Your task to perform on an android device: change keyboard looks Image 0: 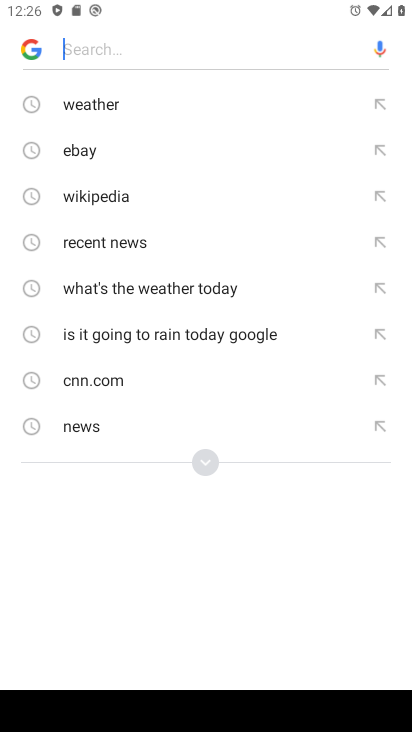
Step 0: press home button
Your task to perform on an android device: change keyboard looks Image 1: 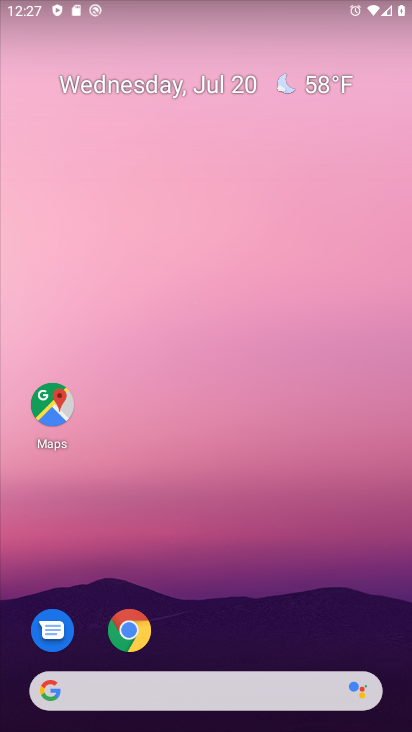
Step 1: drag from (223, 613) to (287, 244)
Your task to perform on an android device: change keyboard looks Image 2: 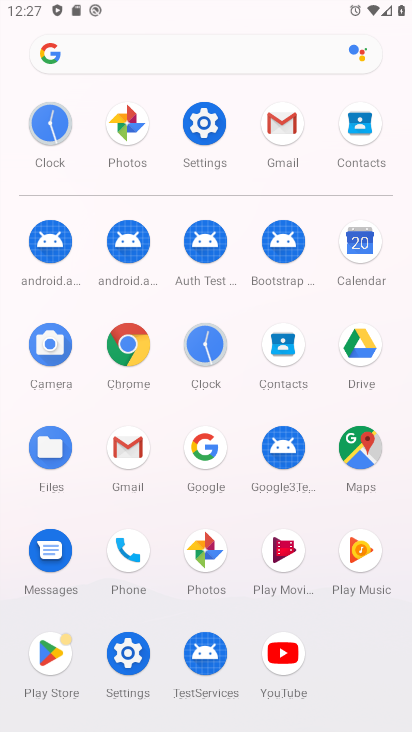
Step 2: click (209, 128)
Your task to perform on an android device: change keyboard looks Image 3: 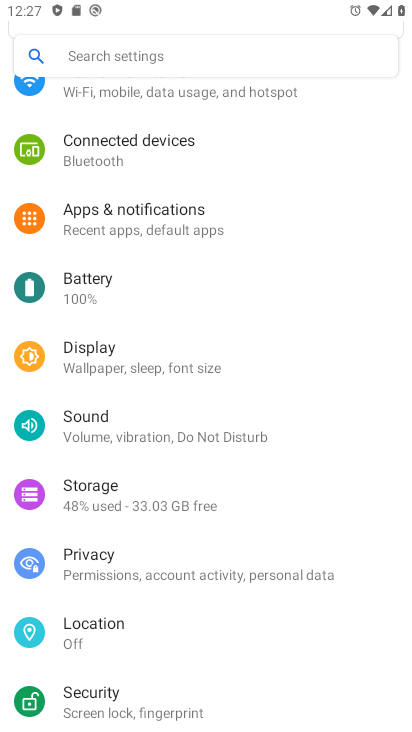
Step 3: drag from (220, 671) to (348, 119)
Your task to perform on an android device: change keyboard looks Image 4: 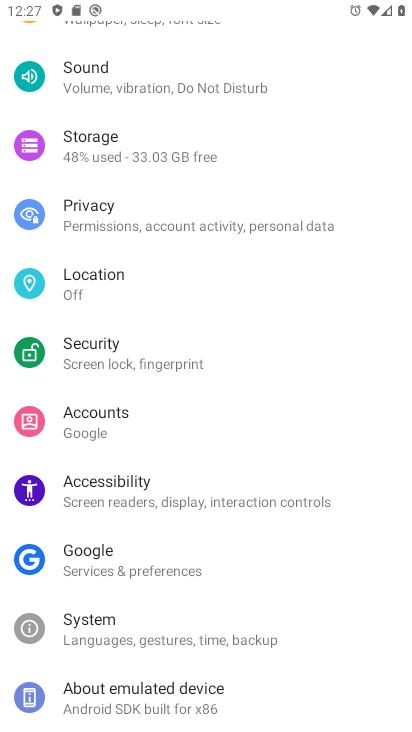
Step 4: click (164, 640)
Your task to perform on an android device: change keyboard looks Image 5: 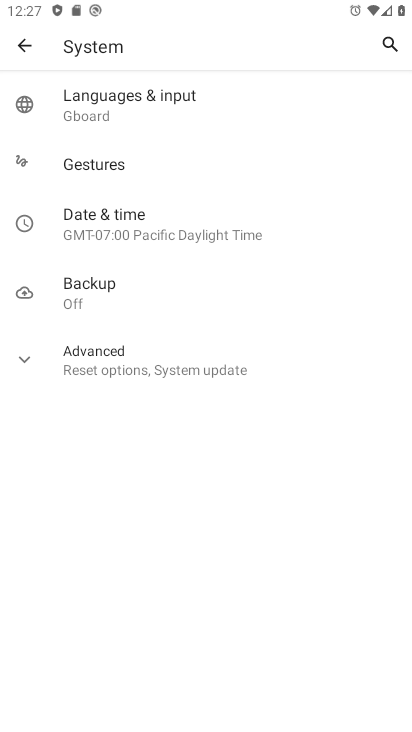
Step 5: click (106, 96)
Your task to perform on an android device: change keyboard looks Image 6: 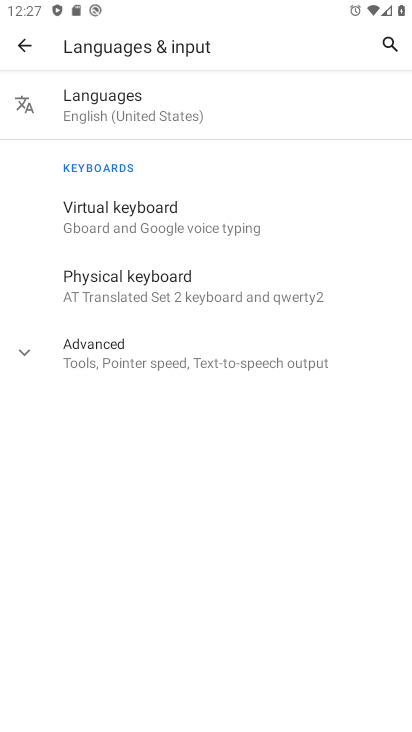
Step 6: click (128, 220)
Your task to perform on an android device: change keyboard looks Image 7: 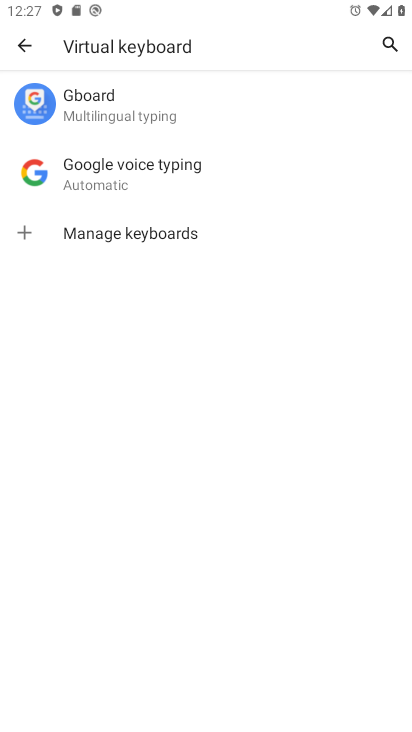
Step 7: click (113, 100)
Your task to perform on an android device: change keyboard looks Image 8: 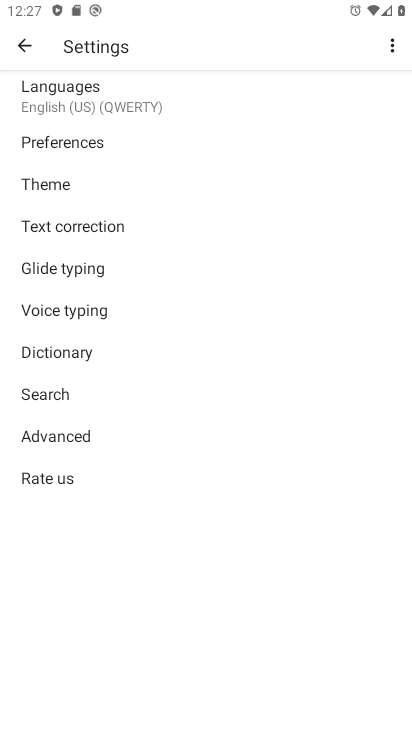
Step 8: click (67, 184)
Your task to perform on an android device: change keyboard looks Image 9: 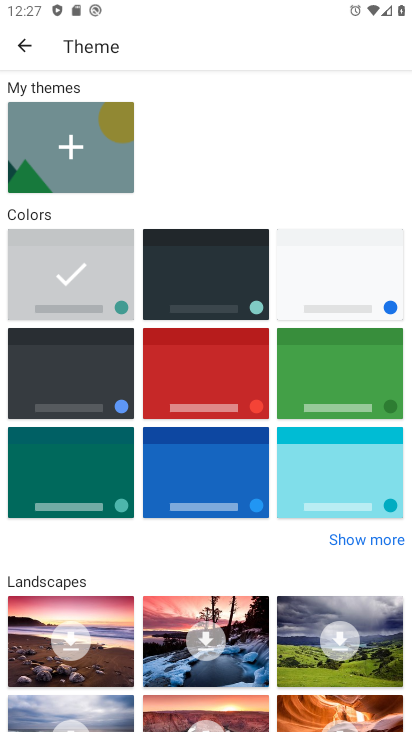
Step 9: click (193, 464)
Your task to perform on an android device: change keyboard looks Image 10: 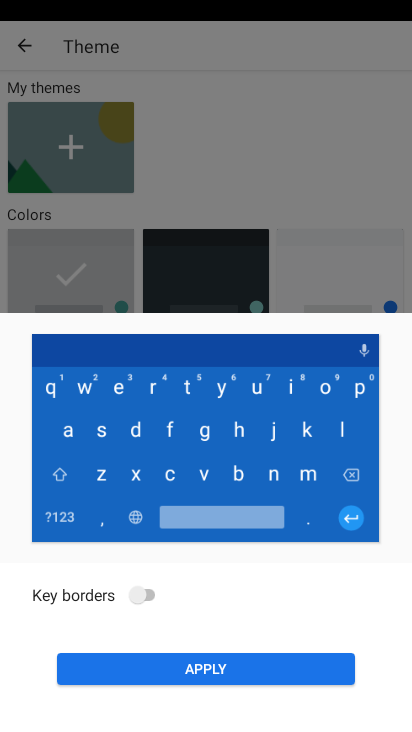
Step 10: click (213, 667)
Your task to perform on an android device: change keyboard looks Image 11: 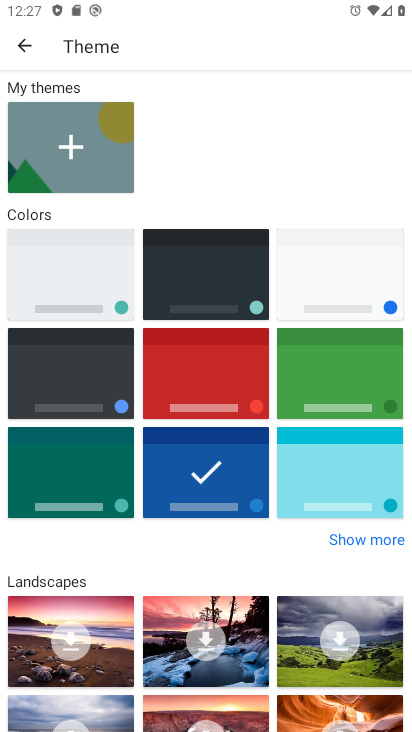
Step 11: task complete